Your task to perform on an android device: Open privacy settings Image 0: 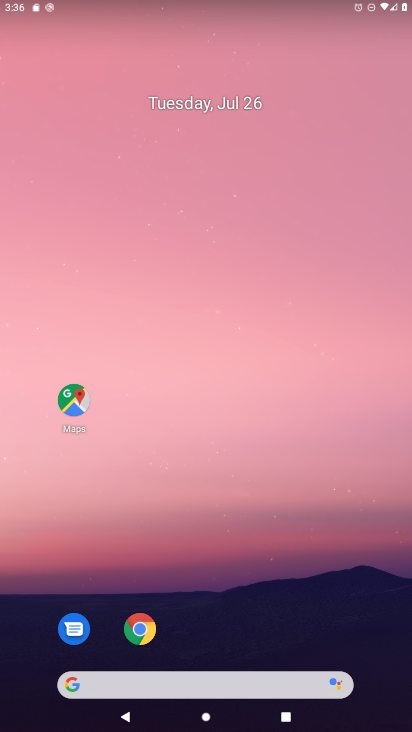
Step 0: drag from (244, 608) to (184, 183)
Your task to perform on an android device: Open privacy settings Image 1: 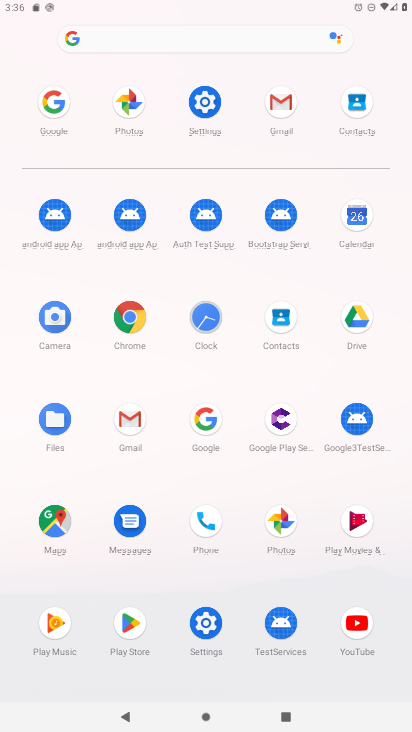
Step 1: click (206, 114)
Your task to perform on an android device: Open privacy settings Image 2: 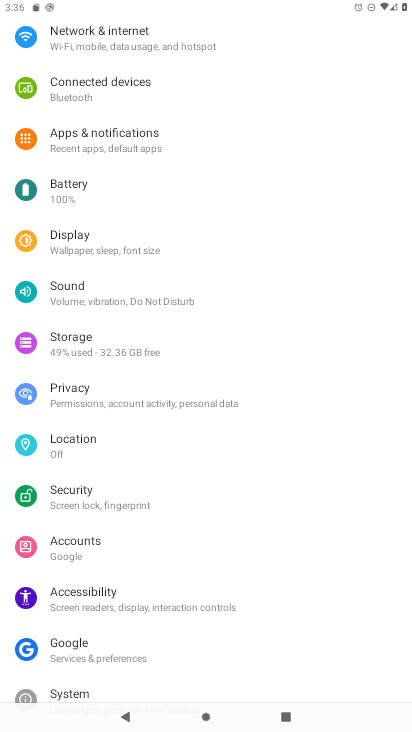
Step 2: click (133, 387)
Your task to perform on an android device: Open privacy settings Image 3: 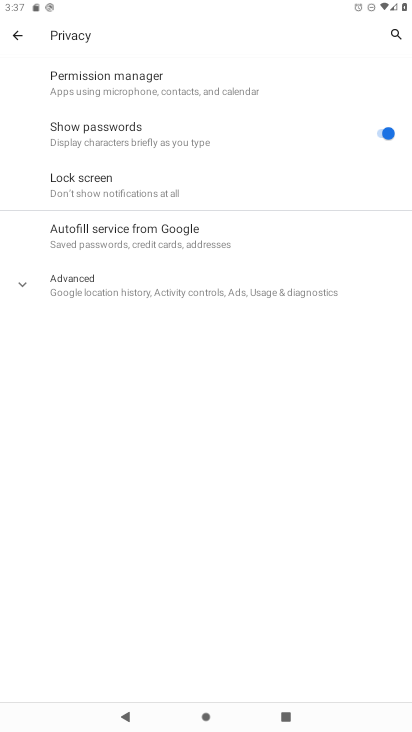
Step 3: task complete